Your task to perform on an android device: turn off picture-in-picture Image 0: 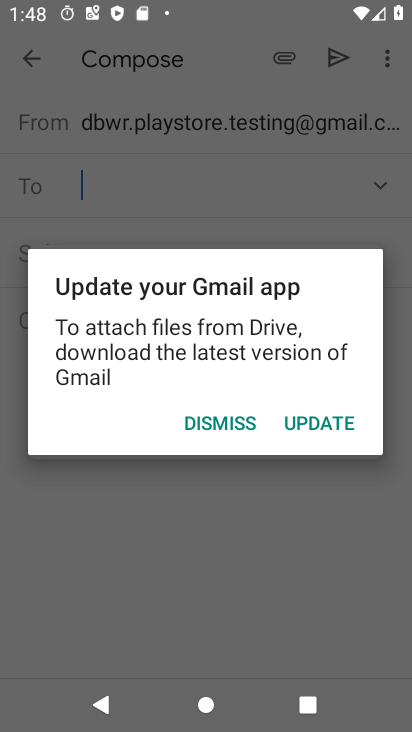
Step 0: press home button
Your task to perform on an android device: turn off picture-in-picture Image 1: 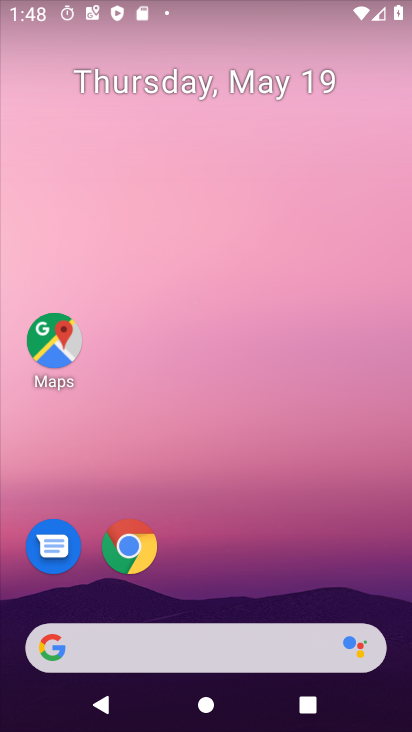
Step 1: click (130, 550)
Your task to perform on an android device: turn off picture-in-picture Image 2: 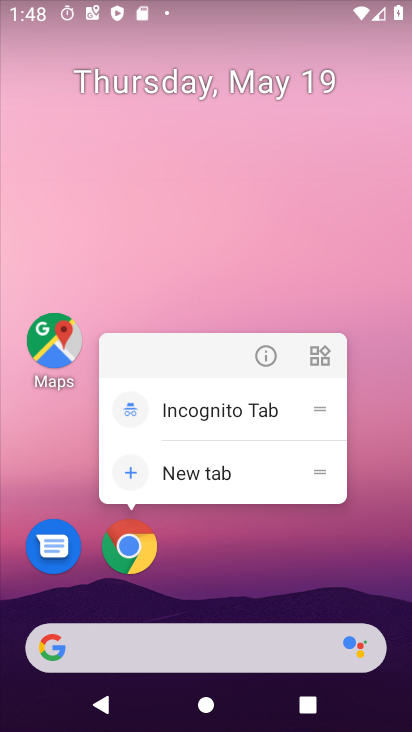
Step 2: click (265, 359)
Your task to perform on an android device: turn off picture-in-picture Image 3: 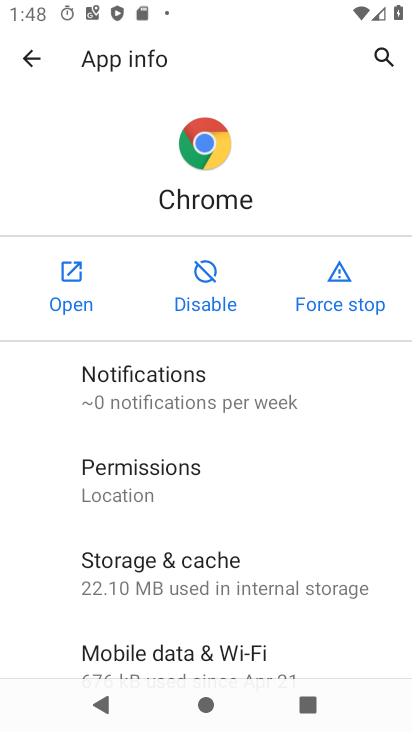
Step 3: drag from (153, 651) to (191, 181)
Your task to perform on an android device: turn off picture-in-picture Image 4: 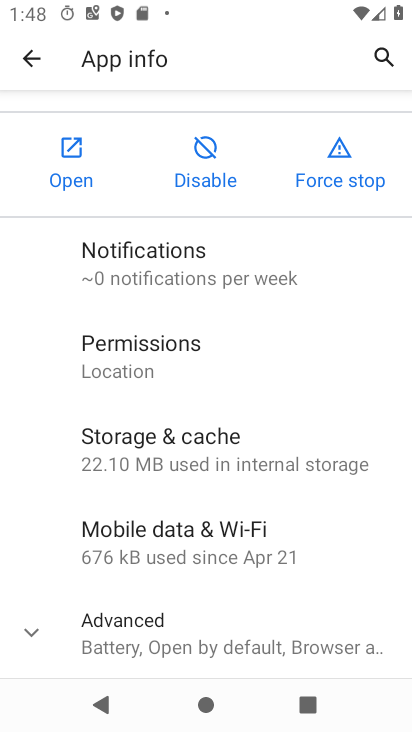
Step 4: click (160, 647)
Your task to perform on an android device: turn off picture-in-picture Image 5: 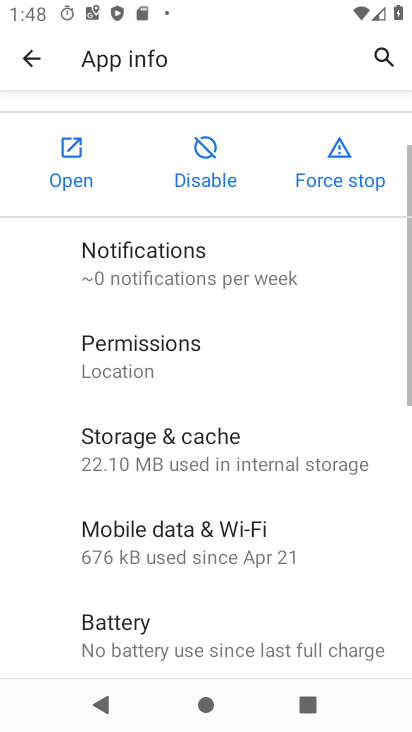
Step 5: drag from (172, 533) to (171, 218)
Your task to perform on an android device: turn off picture-in-picture Image 6: 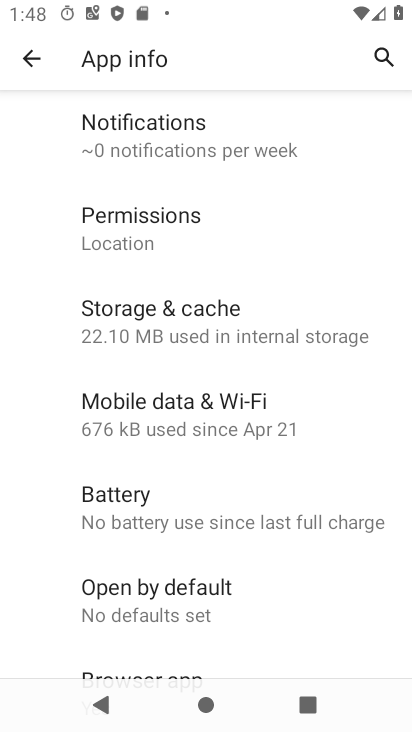
Step 6: drag from (102, 630) to (209, 125)
Your task to perform on an android device: turn off picture-in-picture Image 7: 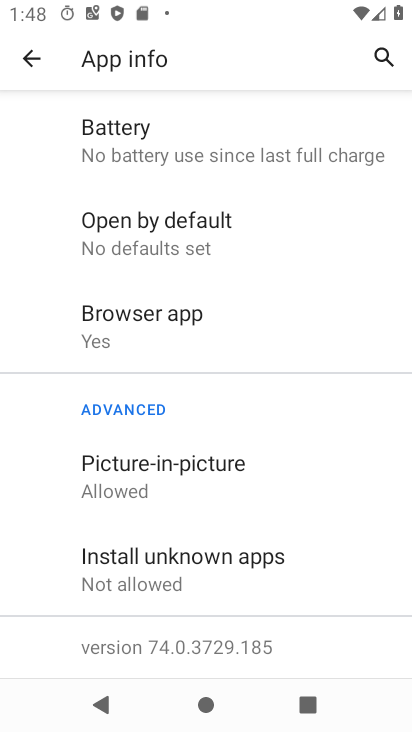
Step 7: click (209, 485)
Your task to perform on an android device: turn off picture-in-picture Image 8: 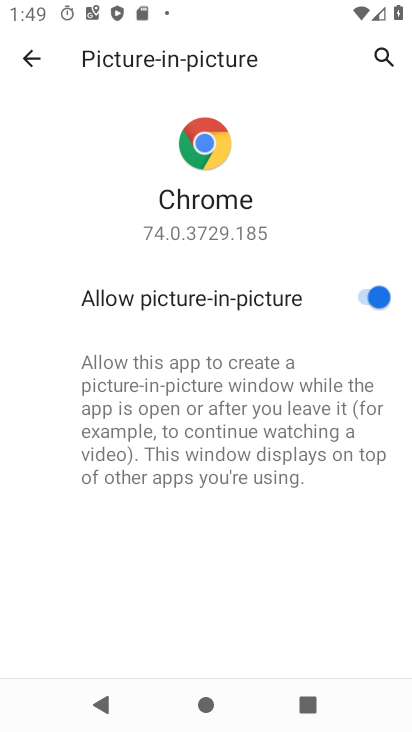
Step 8: click (369, 304)
Your task to perform on an android device: turn off picture-in-picture Image 9: 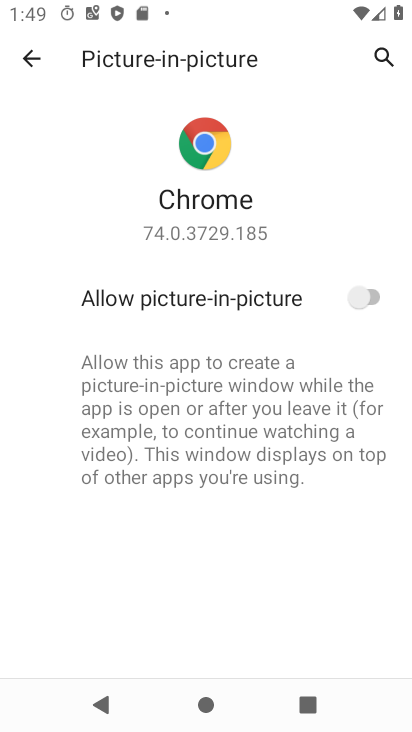
Step 9: task complete